Your task to perform on an android device: set the timer Image 0: 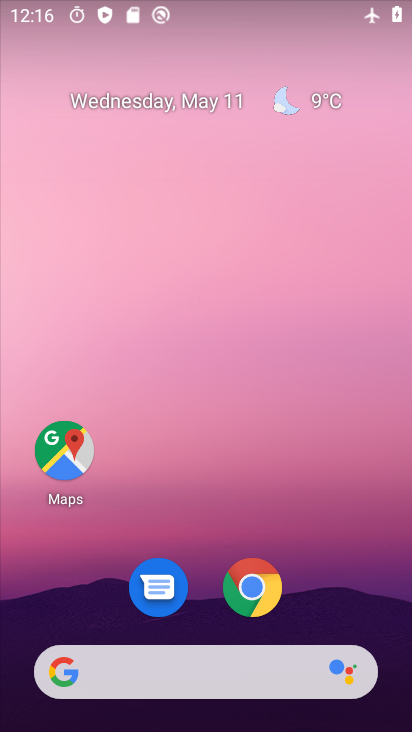
Step 0: drag from (165, 296) to (94, 36)
Your task to perform on an android device: set the timer Image 1: 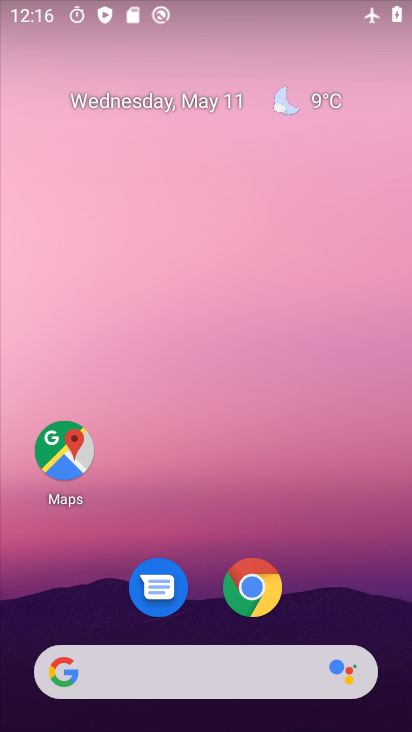
Step 1: drag from (301, 566) to (197, 193)
Your task to perform on an android device: set the timer Image 2: 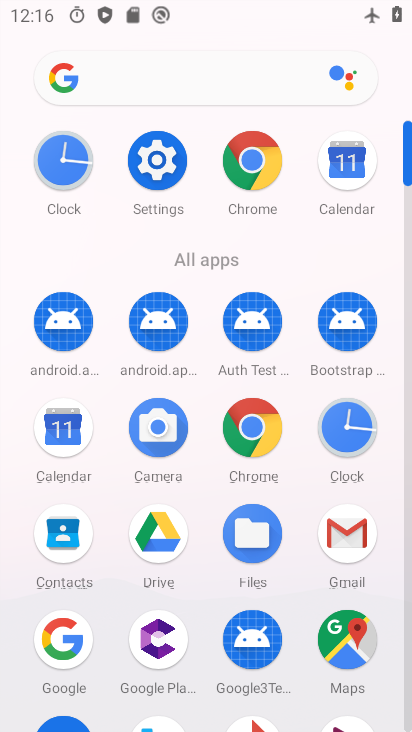
Step 2: click (354, 426)
Your task to perform on an android device: set the timer Image 3: 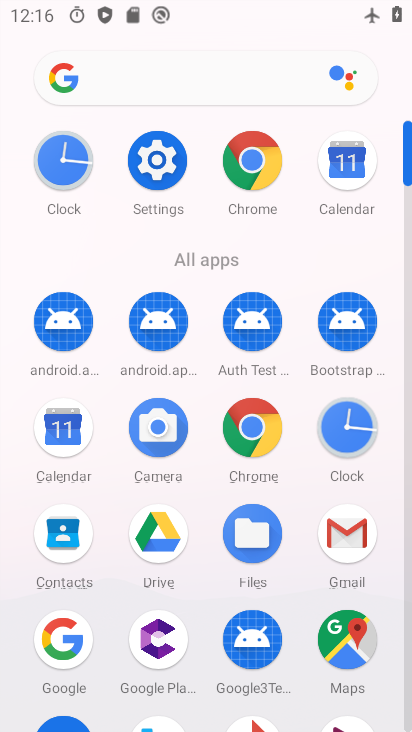
Step 3: click (352, 425)
Your task to perform on an android device: set the timer Image 4: 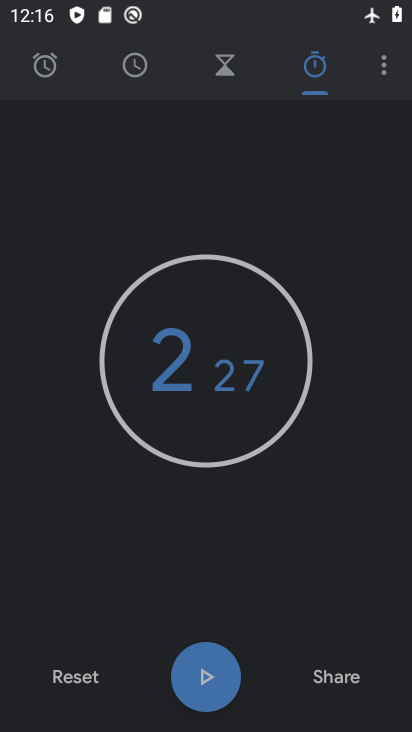
Step 4: click (345, 420)
Your task to perform on an android device: set the timer Image 5: 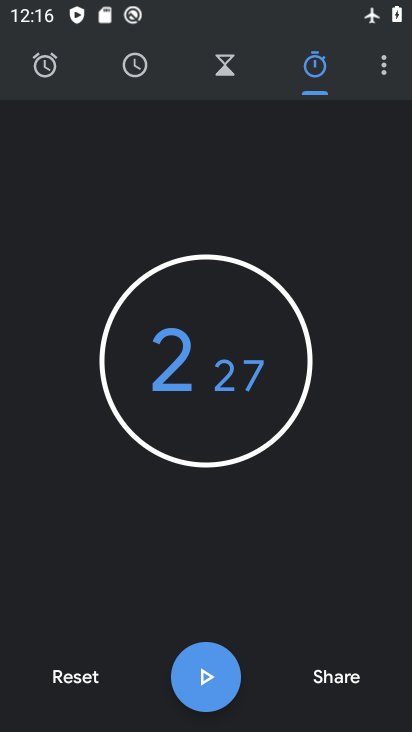
Step 5: click (347, 442)
Your task to perform on an android device: set the timer Image 6: 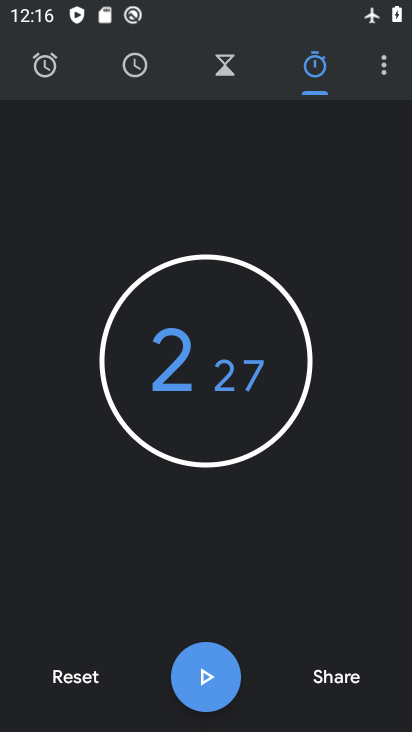
Step 6: click (219, 70)
Your task to perform on an android device: set the timer Image 7: 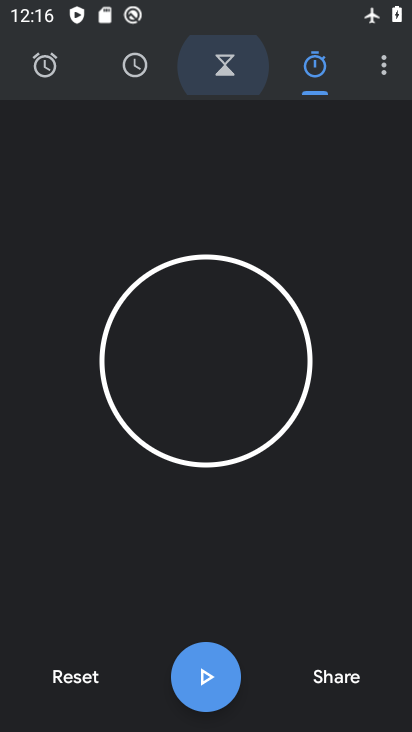
Step 7: click (219, 70)
Your task to perform on an android device: set the timer Image 8: 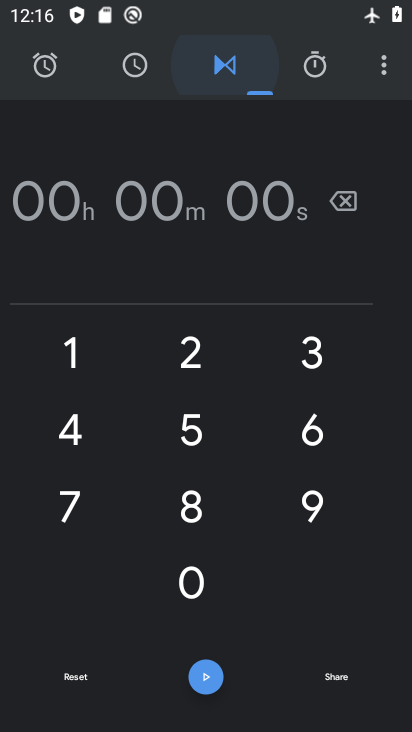
Step 8: click (219, 70)
Your task to perform on an android device: set the timer Image 9: 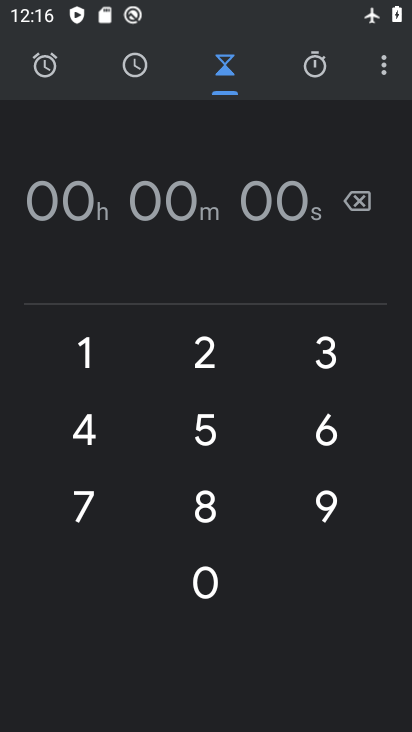
Step 9: click (197, 510)
Your task to perform on an android device: set the timer Image 10: 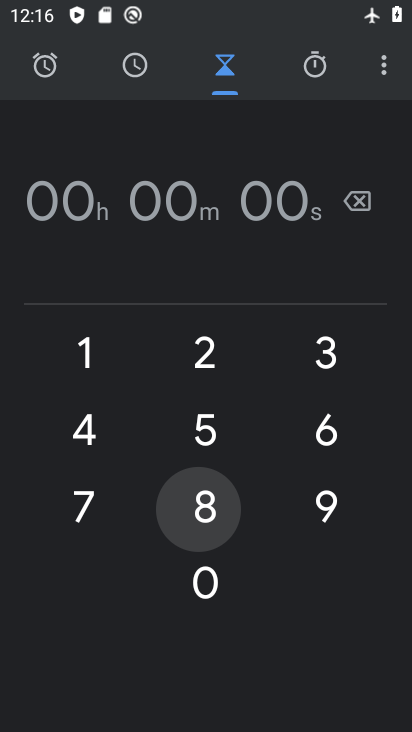
Step 10: click (197, 510)
Your task to perform on an android device: set the timer Image 11: 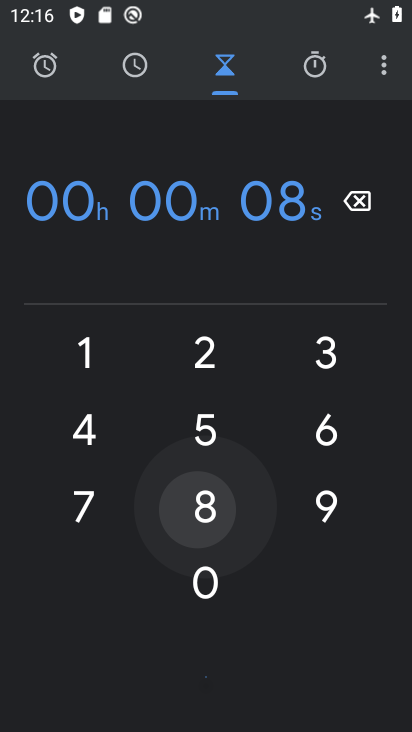
Step 11: click (196, 507)
Your task to perform on an android device: set the timer Image 12: 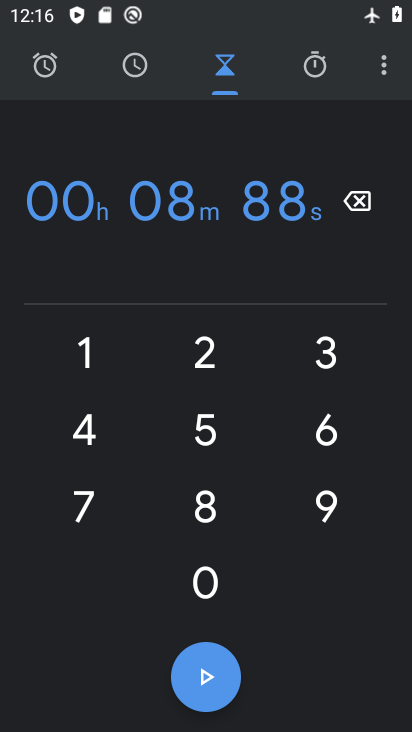
Step 12: click (202, 684)
Your task to perform on an android device: set the timer Image 13: 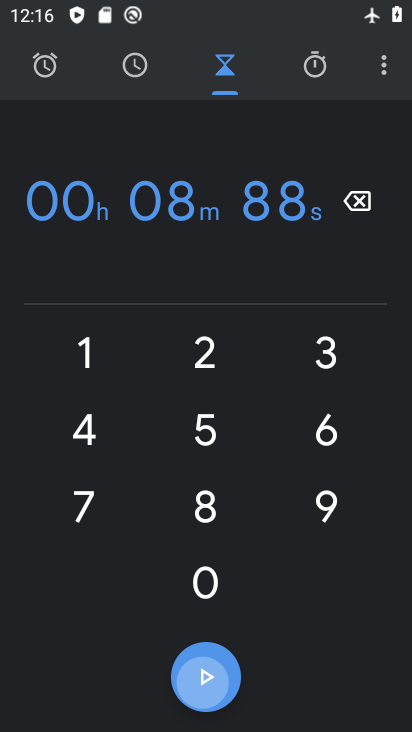
Step 13: click (196, 682)
Your task to perform on an android device: set the timer Image 14: 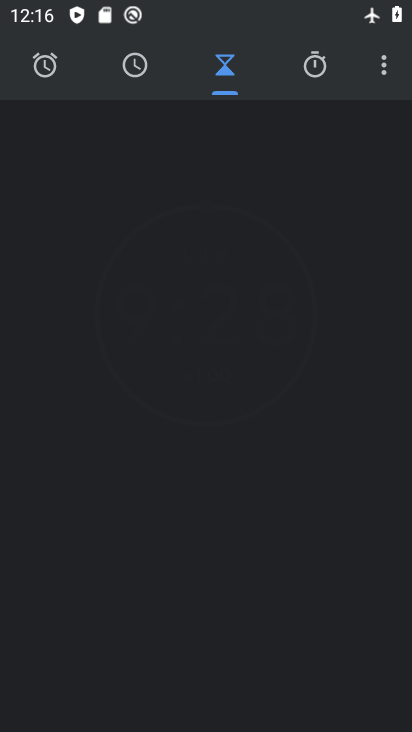
Step 14: click (205, 670)
Your task to perform on an android device: set the timer Image 15: 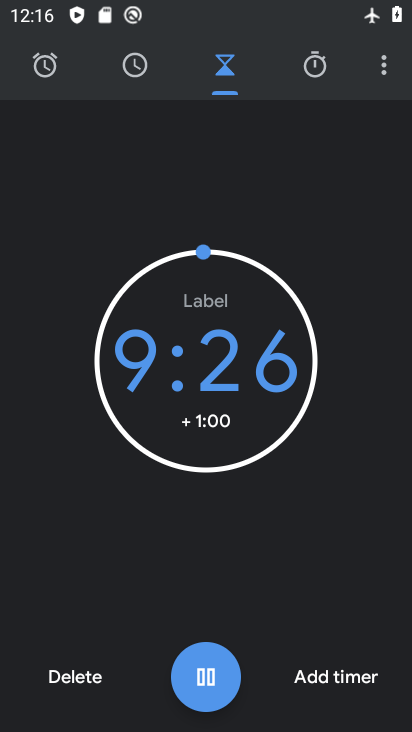
Step 15: click (205, 674)
Your task to perform on an android device: set the timer Image 16: 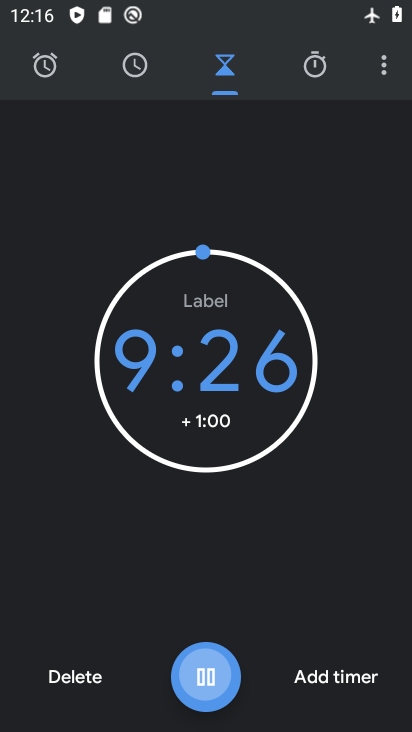
Step 16: click (206, 675)
Your task to perform on an android device: set the timer Image 17: 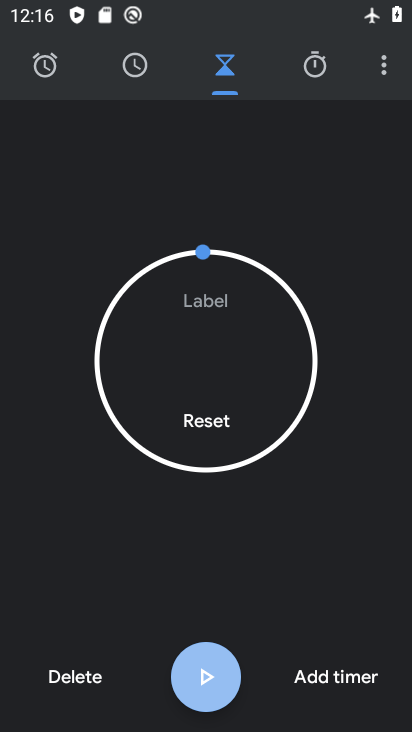
Step 17: click (206, 675)
Your task to perform on an android device: set the timer Image 18: 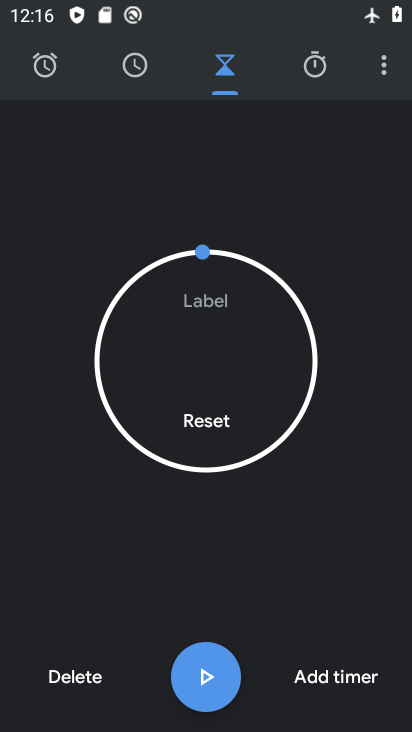
Step 18: task complete